Your task to perform on an android device: What's the weather like in Los Angeles? Image 0: 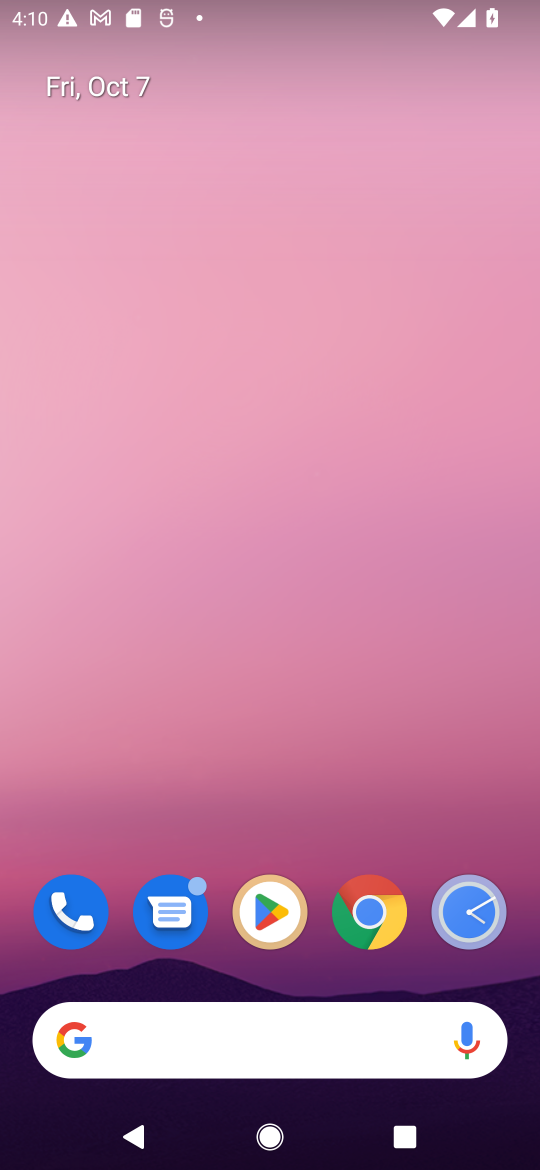
Step 0: drag from (189, 1004) to (143, 251)
Your task to perform on an android device: What's the weather like in Los Angeles? Image 1: 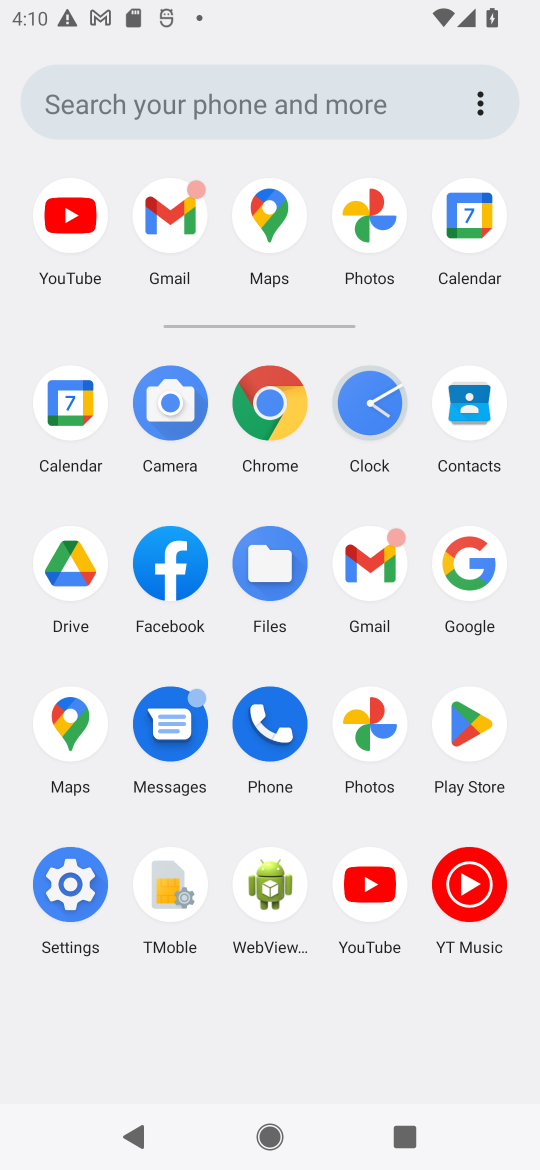
Step 1: click (449, 546)
Your task to perform on an android device: What's the weather like in Los Angeles? Image 2: 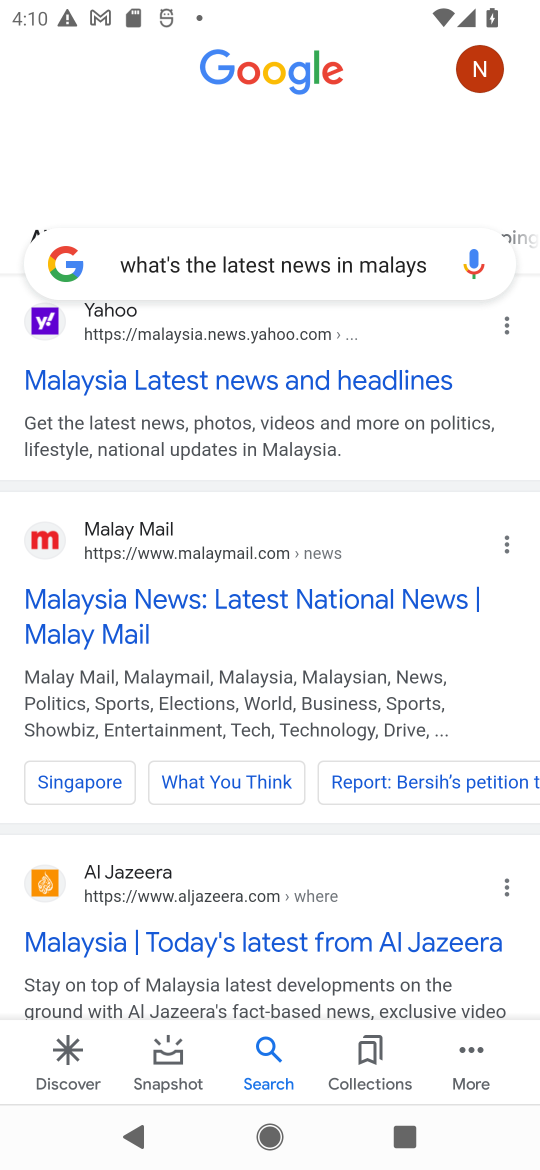
Step 2: click (403, 259)
Your task to perform on an android device: What's the weather like in Los Angeles? Image 3: 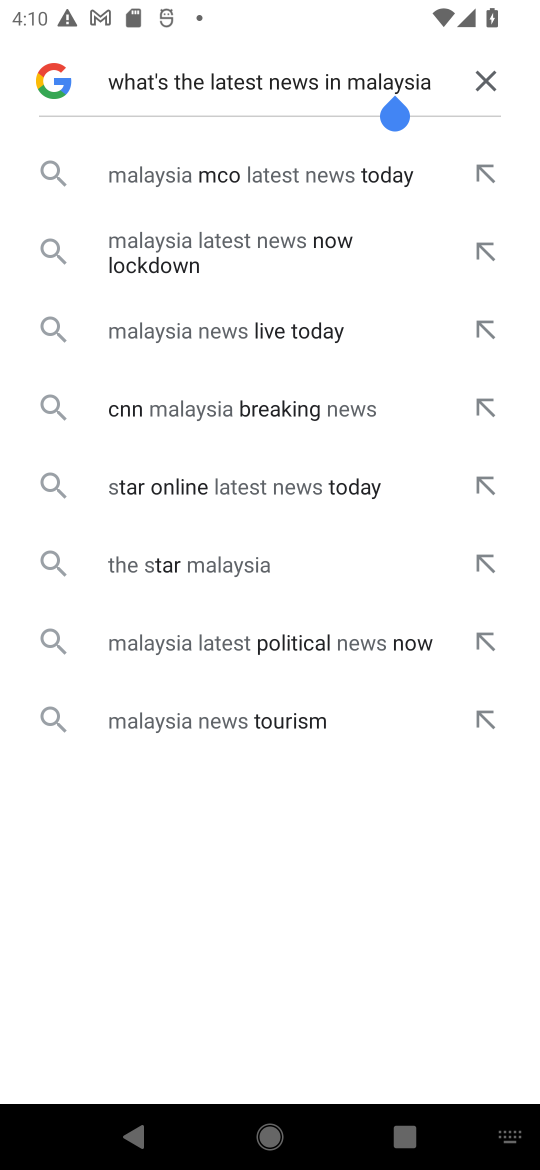
Step 3: click (480, 80)
Your task to perform on an android device: What's the weather like in Los Angeles? Image 4: 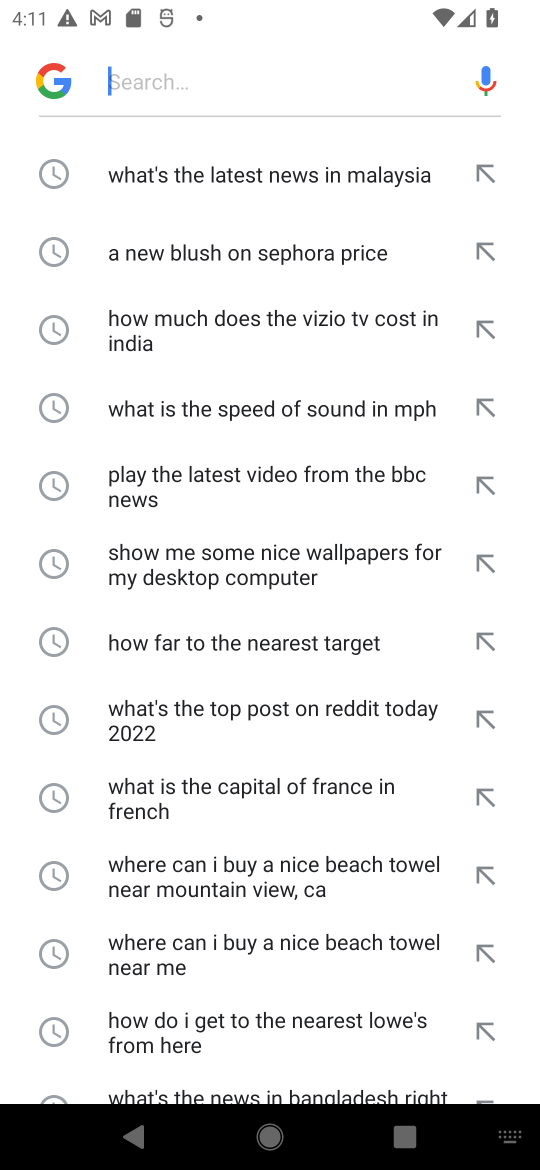
Step 4: click (252, 84)
Your task to perform on an android device: What's the weather like in Los Angeles? Image 5: 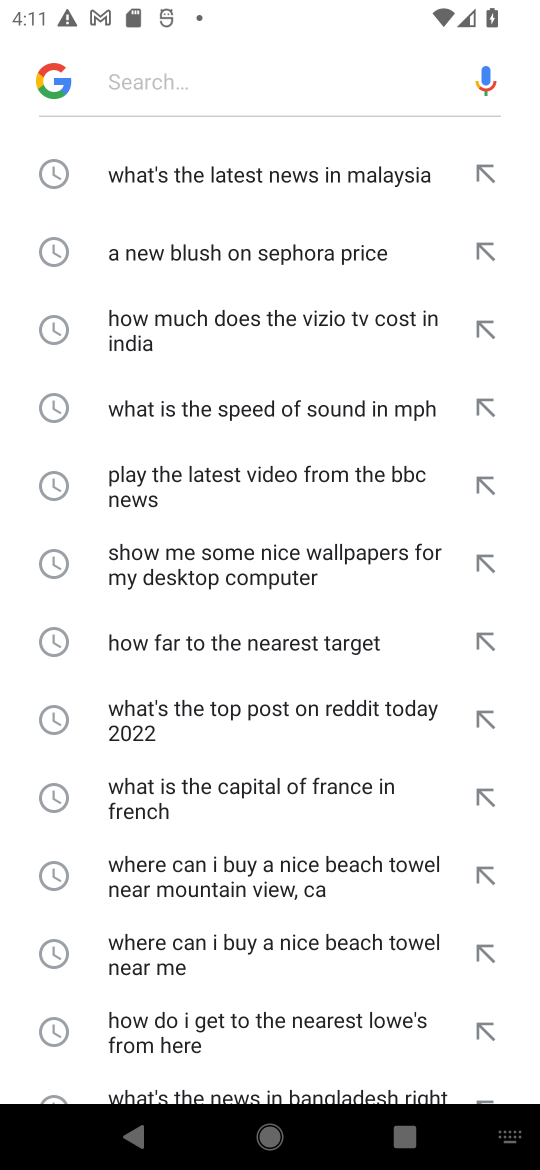
Step 5: type "What's the weather like in Los Angeles? "
Your task to perform on an android device: What's the weather like in Los Angeles? Image 6: 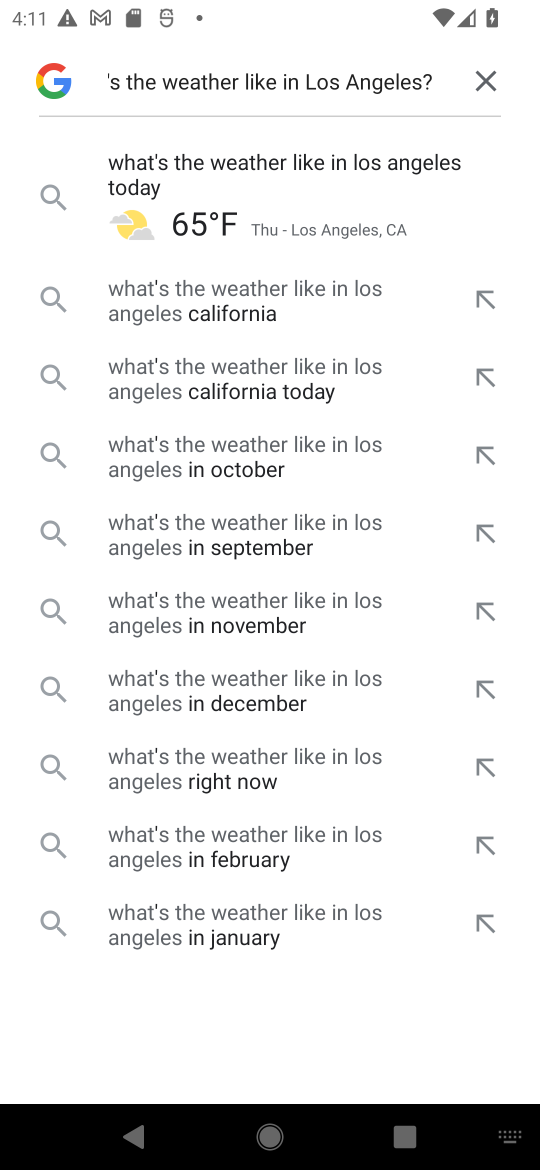
Step 6: click (321, 179)
Your task to perform on an android device: What's the weather like in Los Angeles? Image 7: 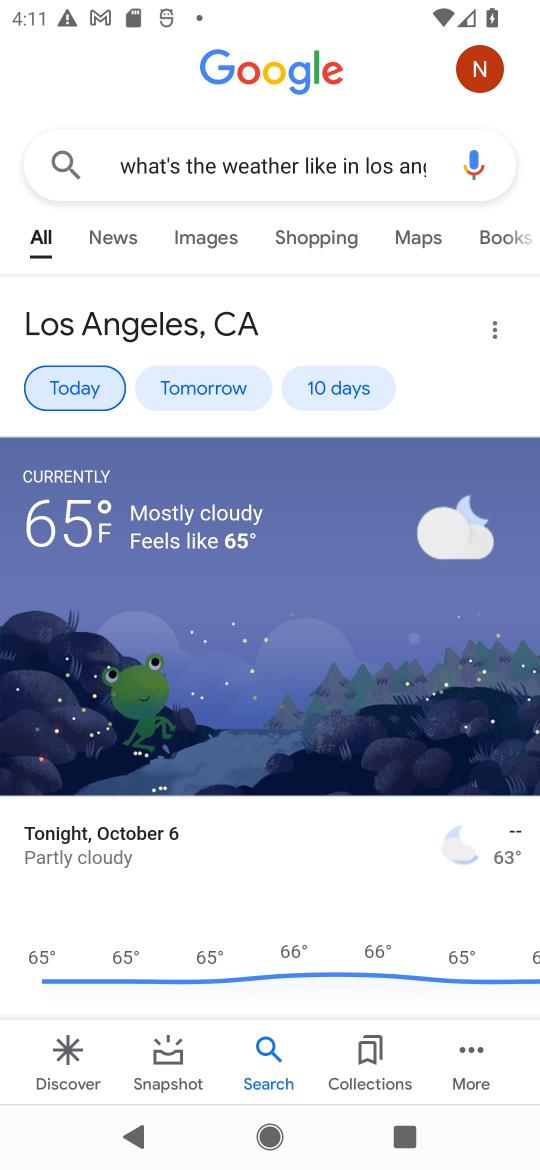
Step 7: task complete